Your task to perform on an android device: empty trash in google photos Image 0: 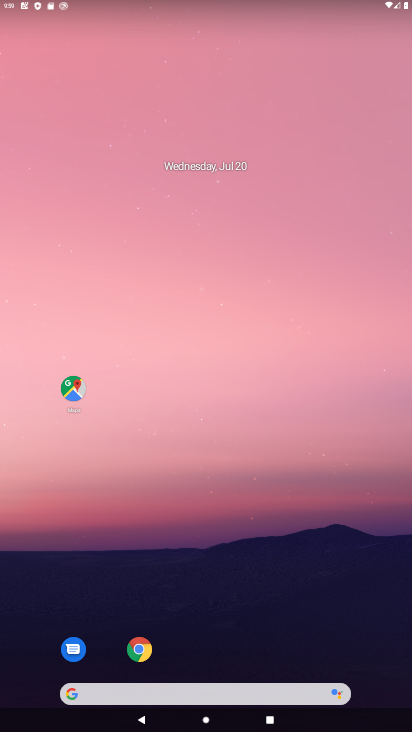
Step 0: drag from (237, 639) to (367, 1)
Your task to perform on an android device: empty trash in google photos Image 1: 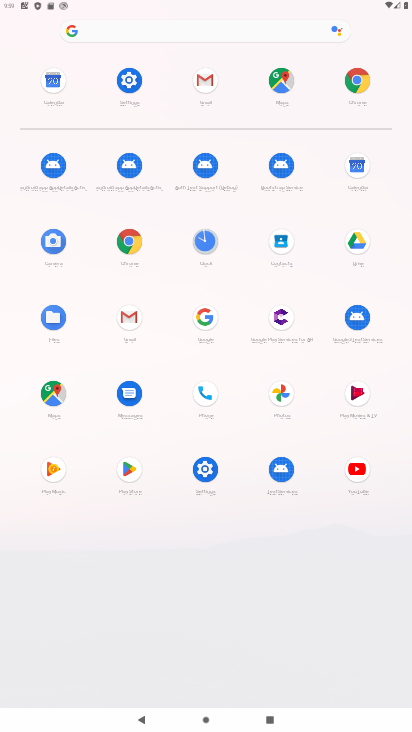
Step 1: click (292, 385)
Your task to perform on an android device: empty trash in google photos Image 2: 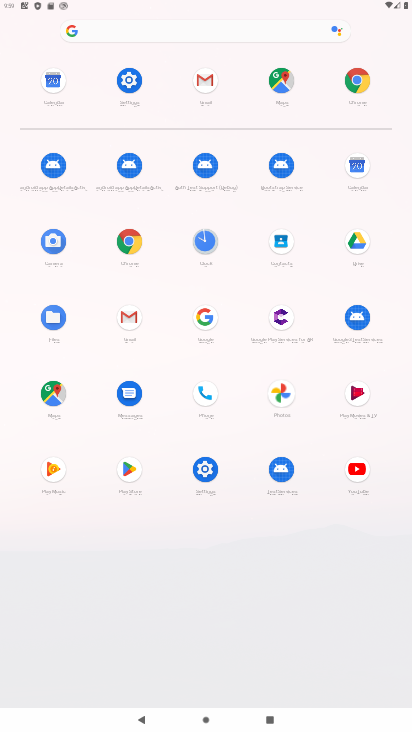
Step 2: task complete